Your task to perform on an android device: move a message to another label in the gmail app Image 0: 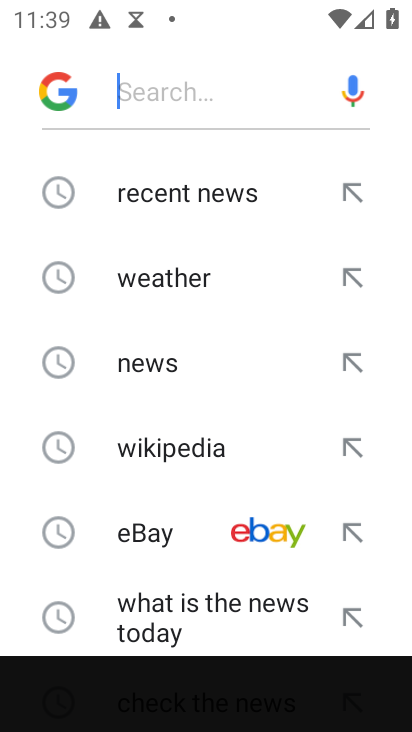
Step 0: press home button
Your task to perform on an android device: move a message to another label in the gmail app Image 1: 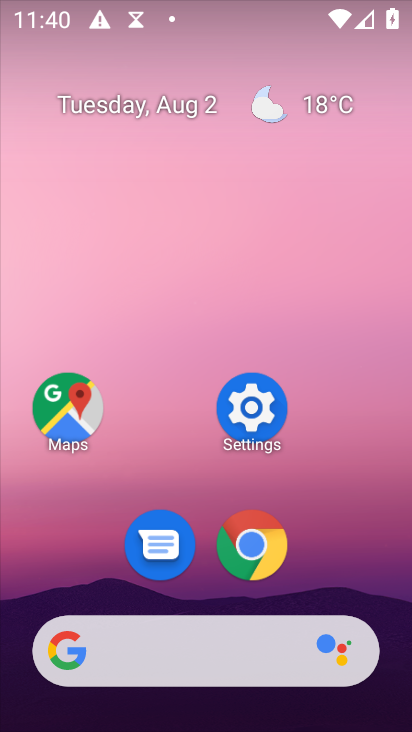
Step 1: drag from (162, 638) to (337, 59)
Your task to perform on an android device: move a message to another label in the gmail app Image 2: 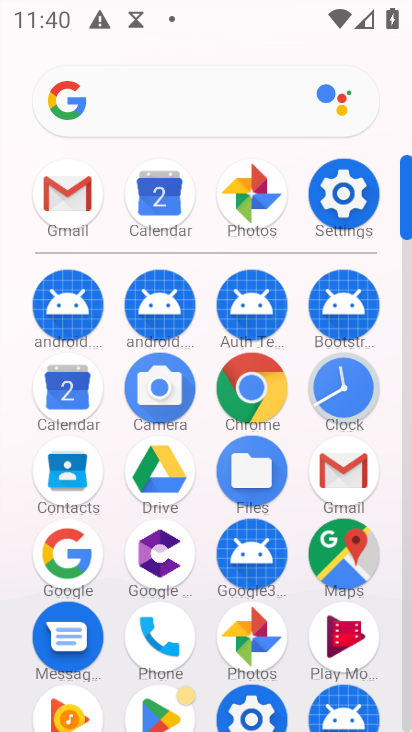
Step 2: click (58, 197)
Your task to perform on an android device: move a message to another label in the gmail app Image 3: 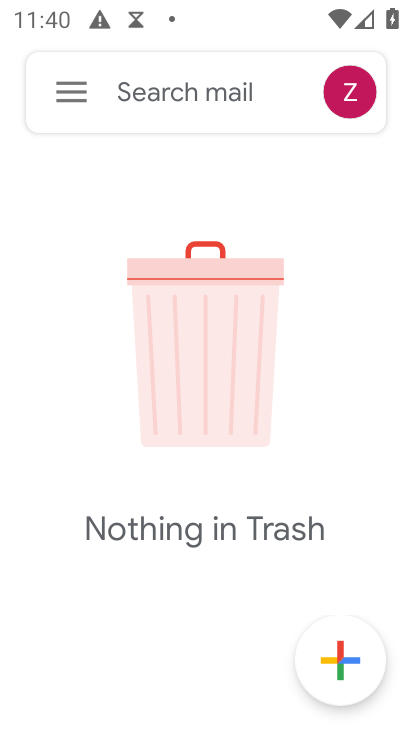
Step 3: click (79, 88)
Your task to perform on an android device: move a message to another label in the gmail app Image 4: 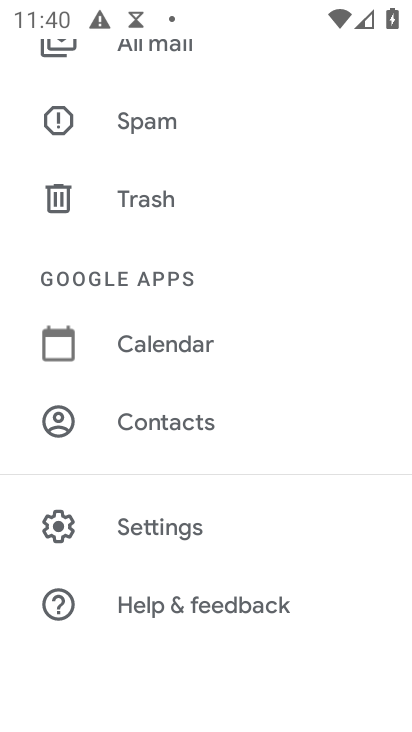
Step 4: drag from (265, 131) to (238, 622)
Your task to perform on an android device: move a message to another label in the gmail app Image 5: 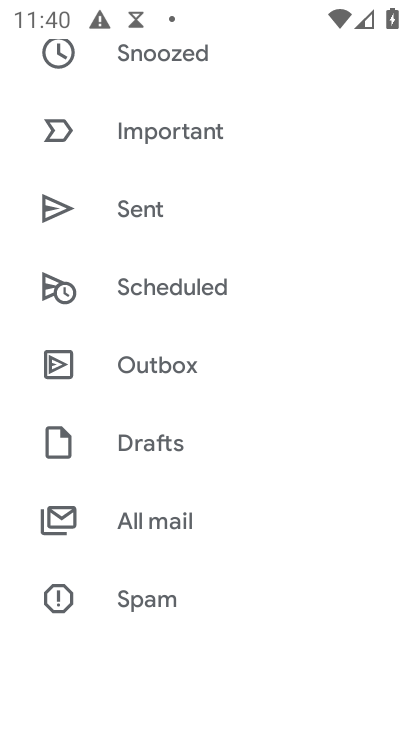
Step 5: click (177, 519)
Your task to perform on an android device: move a message to another label in the gmail app Image 6: 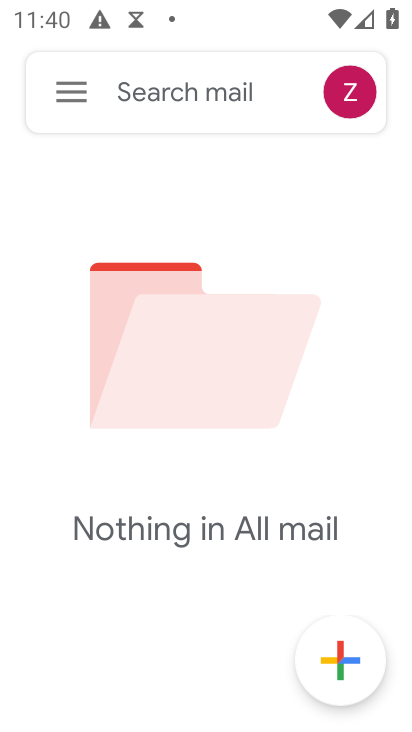
Step 6: task complete